Your task to perform on an android device: install app "PUBG MOBILE" Image 0: 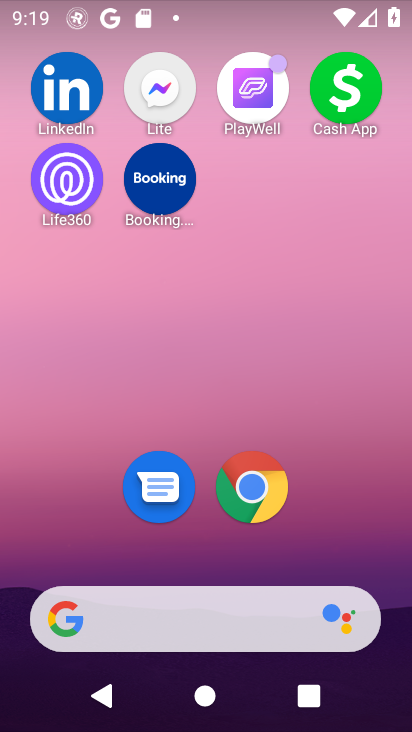
Step 0: click (244, 211)
Your task to perform on an android device: install app "PUBG MOBILE" Image 1: 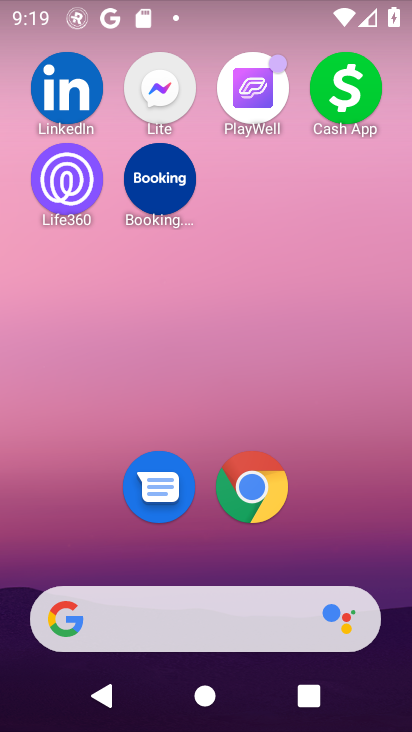
Step 1: drag from (244, 539) to (243, 134)
Your task to perform on an android device: install app "PUBG MOBILE" Image 2: 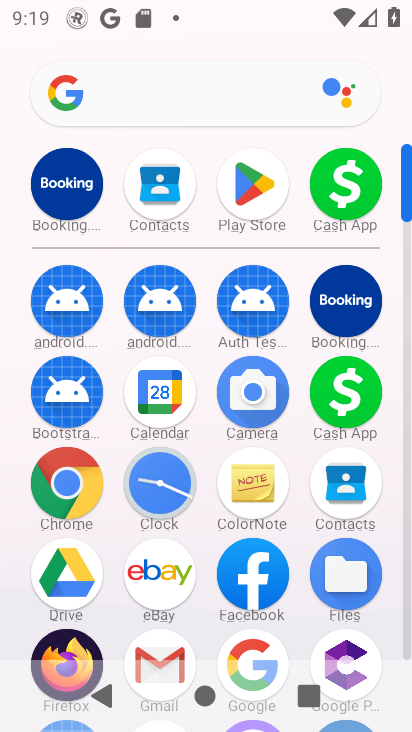
Step 2: click (235, 186)
Your task to perform on an android device: install app "PUBG MOBILE" Image 3: 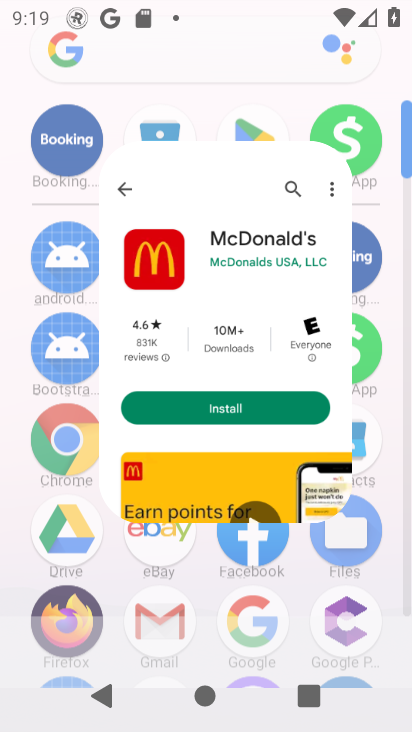
Step 3: click (235, 186)
Your task to perform on an android device: install app "PUBG MOBILE" Image 4: 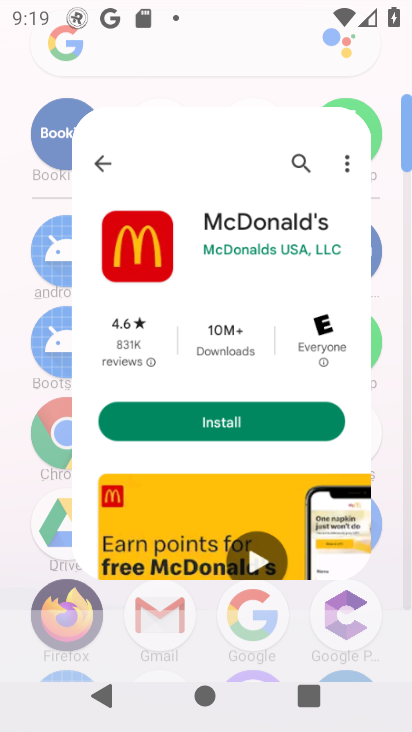
Step 4: click (245, 181)
Your task to perform on an android device: install app "PUBG MOBILE" Image 5: 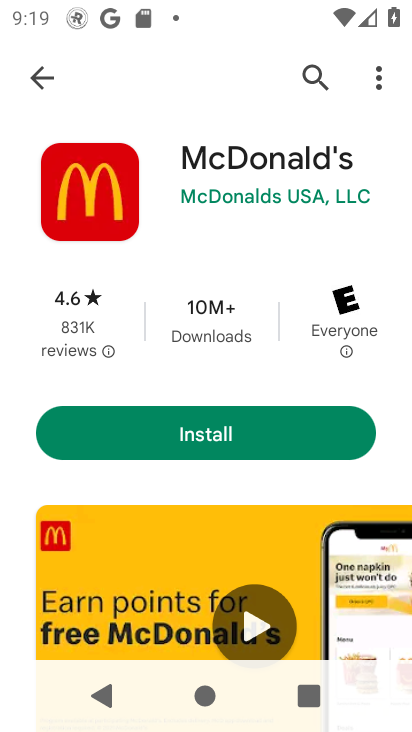
Step 5: click (252, 177)
Your task to perform on an android device: install app "PUBG MOBILE" Image 6: 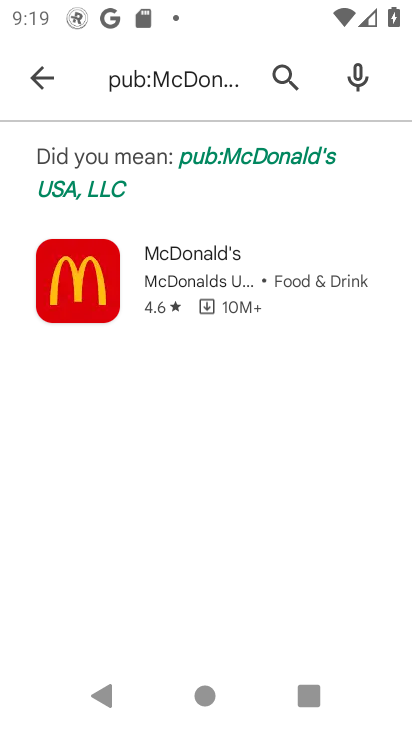
Step 6: click (27, 74)
Your task to perform on an android device: install app "PUBG MOBILE" Image 7: 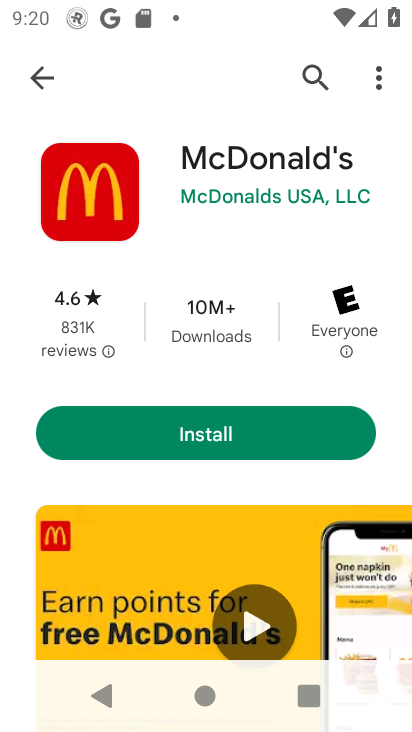
Step 7: click (37, 76)
Your task to perform on an android device: install app "PUBG MOBILE" Image 8: 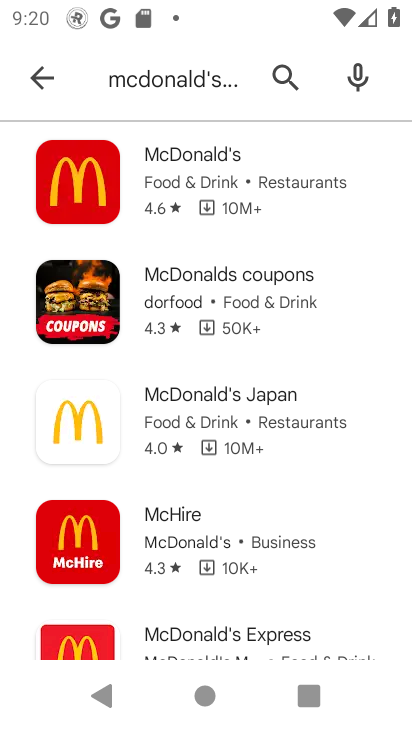
Step 8: click (35, 73)
Your task to perform on an android device: install app "PUBG MOBILE" Image 9: 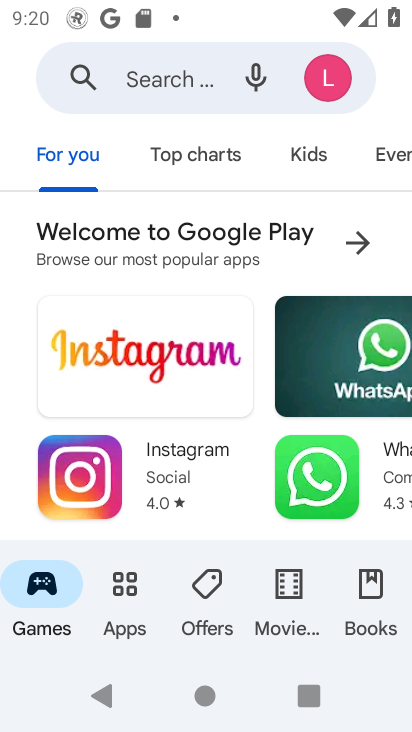
Step 9: click (157, 69)
Your task to perform on an android device: install app "PUBG MOBILE" Image 10: 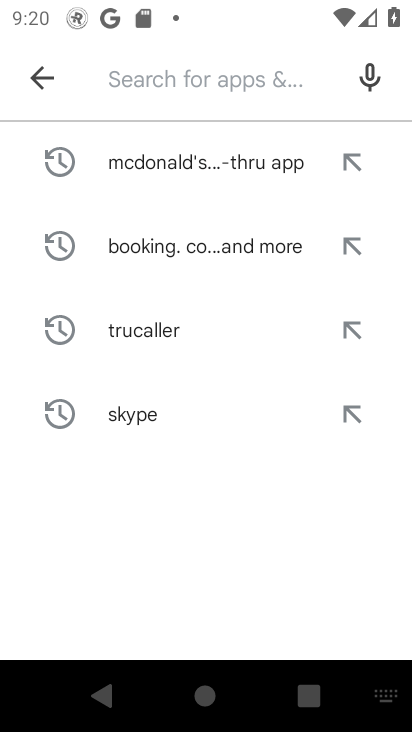
Step 10: type "PUBG MOBILE"
Your task to perform on an android device: install app "PUBG MOBILE" Image 11: 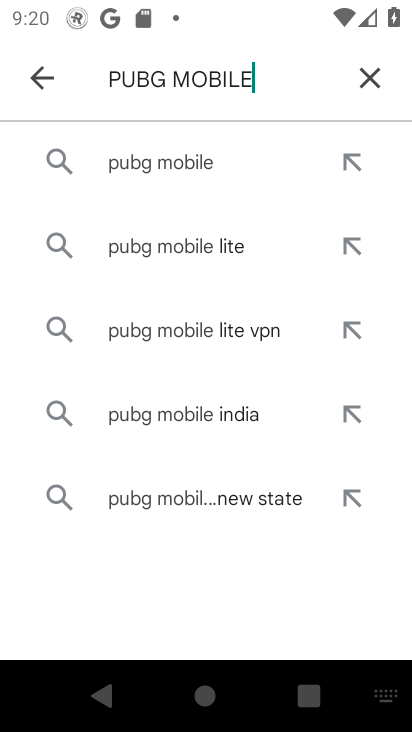
Step 11: click (169, 163)
Your task to perform on an android device: install app "PUBG MOBILE" Image 12: 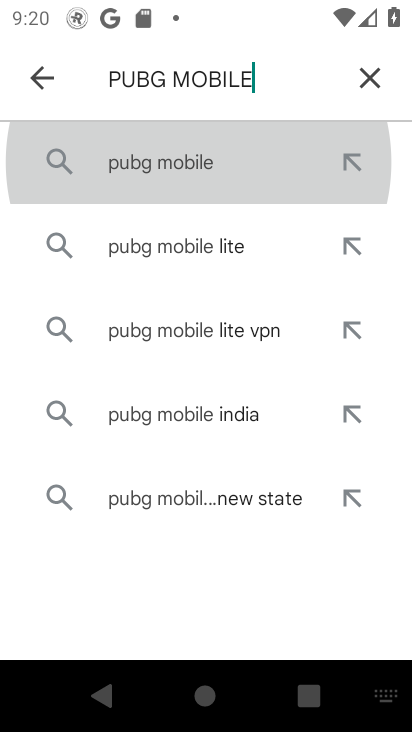
Step 12: click (169, 163)
Your task to perform on an android device: install app "PUBG MOBILE" Image 13: 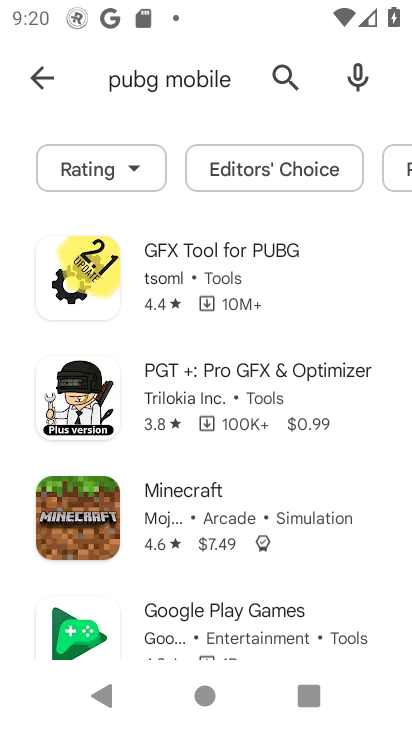
Step 13: click (181, 214)
Your task to perform on an android device: install app "PUBG MOBILE" Image 14: 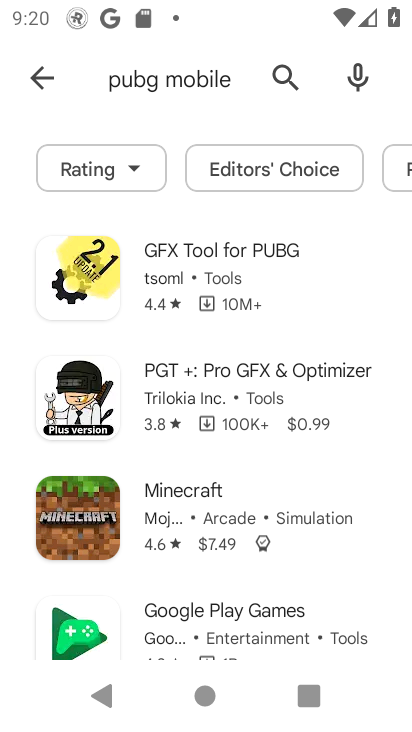
Step 14: task complete